Your task to perform on an android device: turn on translation in the chrome app Image 0: 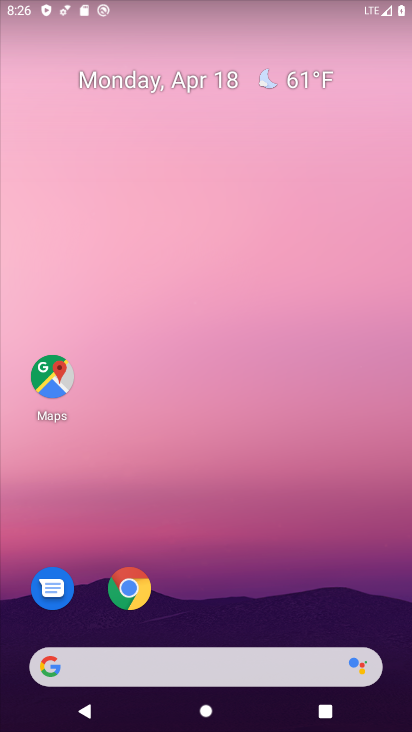
Step 0: click (129, 589)
Your task to perform on an android device: turn on translation in the chrome app Image 1: 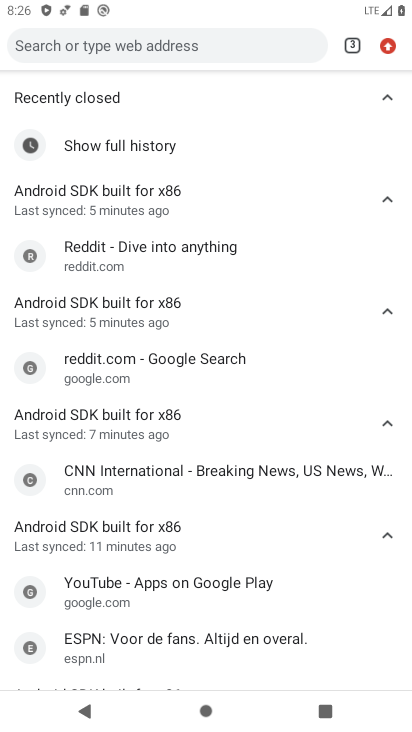
Step 1: click (389, 45)
Your task to perform on an android device: turn on translation in the chrome app Image 2: 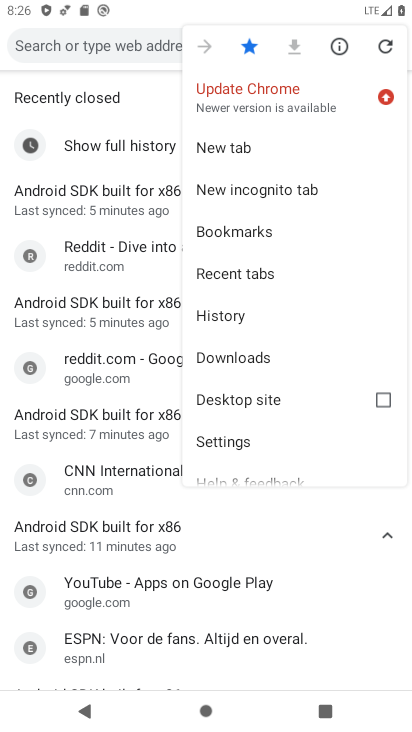
Step 2: click (232, 440)
Your task to perform on an android device: turn on translation in the chrome app Image 3: 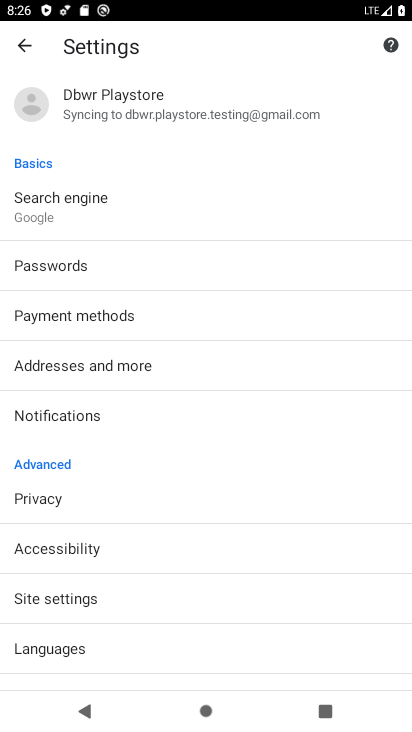
Step 3: drag from (152, 623) to (155, 387)
Your task to perform on an android device: turn on translation in the chrome app Image 4: 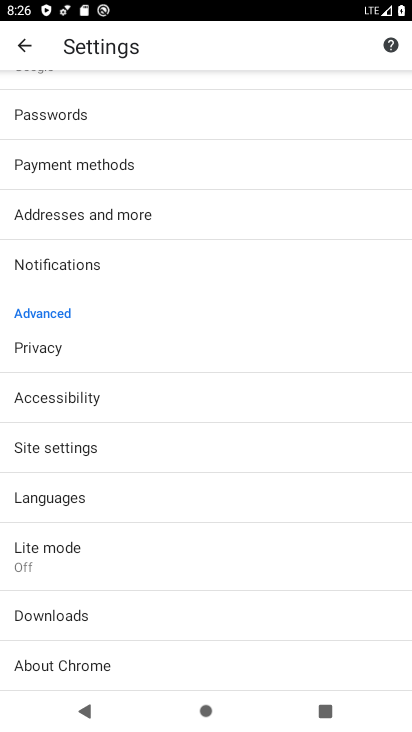
Step 4: click (39, 498)
Your task to perform on an android device: turn on translation in the chrome app Image 5: 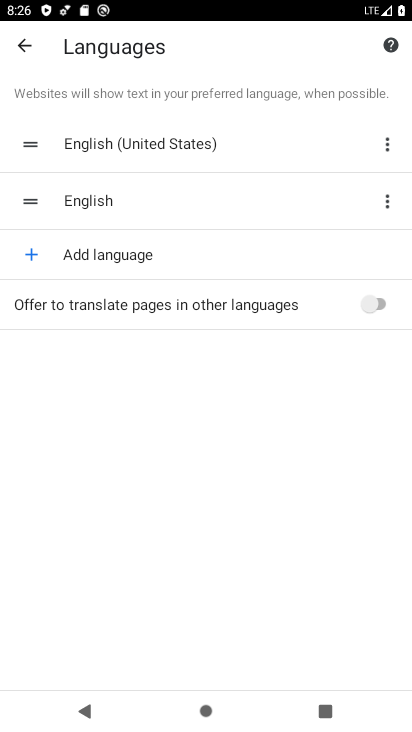
Step 5: click (379, 302)
Your task to perform on an android device: turn on translation in the chrome app Image 6: 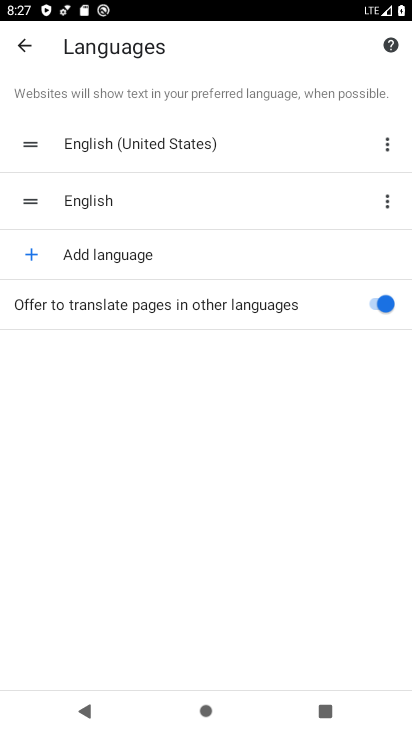
Step 6: task complete